Your task to perform on an android device: Show the shopping cart on amazon. Add "logitech g933" to the cart on amazon, then select checkout. Image 0: 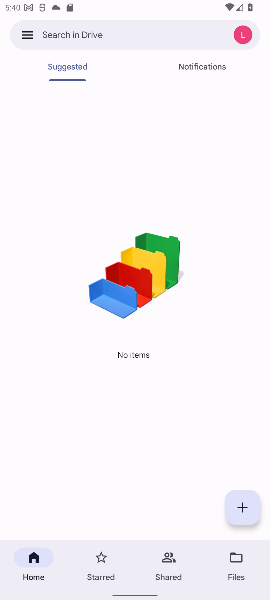
Step 0: press home button
Your task to perform on an android device: Show the shopping cart on amazon. Add "logitech g933" to the cart on amazon, then select checkout. Image 1: 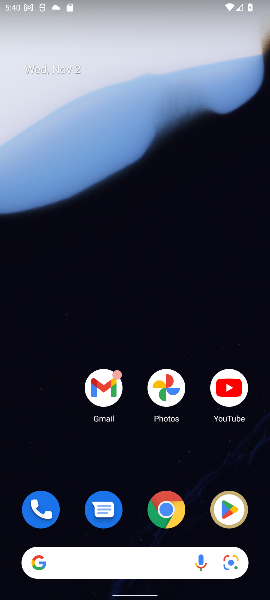
Step 1: click (151, 556)
Your task to perform on an android device: Show the shopping cart on amazon. Add "logitech g933" to the cart on amazon, then select checkout. Image 2: 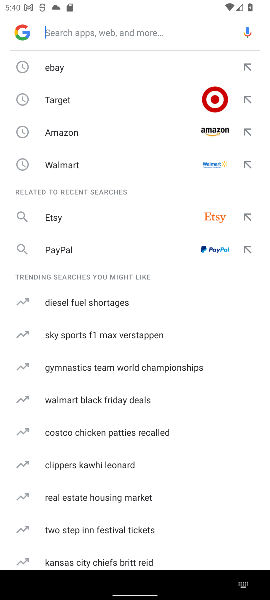
Step 2: click (74, 131)
Your task to perform on an android device: Show the shopping cart on amazon. Add "logitech g933" to the cart on amazon, then select checkout. Image 3: 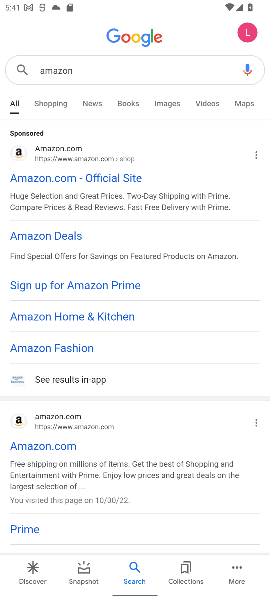
Step 3: click (40, 443)
Your task to perform on an android device: Show the shopping cart on amazon. Add "logitech g933" to the cart on amazon, then select checkout. Image 4: 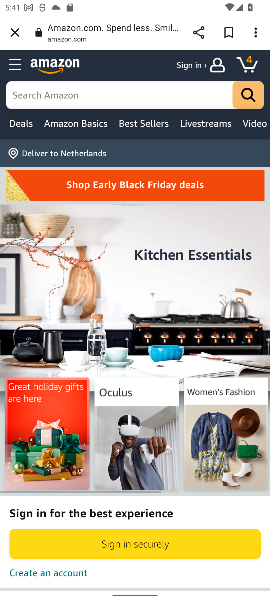
Step 4: click (102, 94)
Your task to perform on an android device: Show the shopping cart on amazon. Add "logitech g933" to the cart on amazon, then select checkout. Image 5: 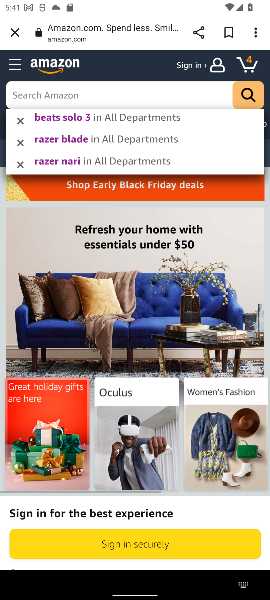
Step 5: click (250, 64)
Your task to perform on an android device: Show the shopping cart on amazon. Add "logitech g933" to the cart on amazon, then select checkout. Image 6: 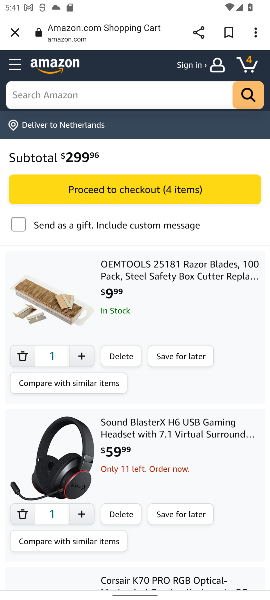
Step 6: click (43, 96)
Your task to perform on an android device: Show the shopping cart on amazon. Add "logitech g933" to the cart on amazon, then select checkout. Image 7: 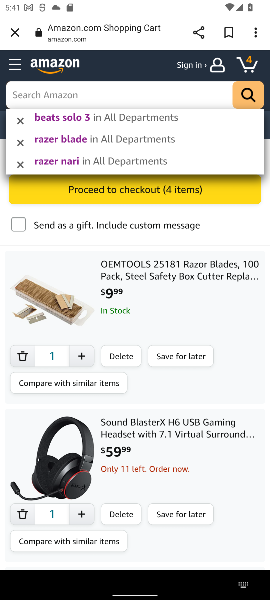
Step 7: type "logitech g933"
Your task to perform on an android device: Show the shopping cart on amazon. Add "logitech g933" to the cart on amazon, then select checkout. Image 8: 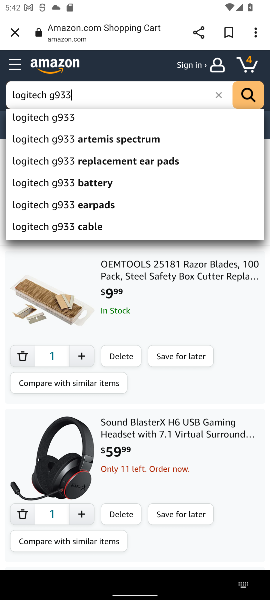
Step 8: click (52, 117)
Your task to perform on an android device: Show the shopping cart on amazon. Add "logitech g933" to the cart on amazon, then select checkout. Image 9: 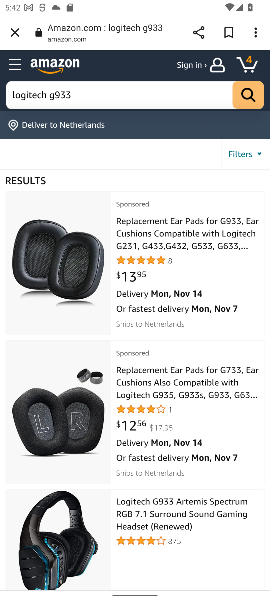
Step 9: click (152, 234)
Your task to perform on an android device: Show the shopping cart on amazon. Add "logitech g933" to the cart on amazon, then select checkout. Image 10: 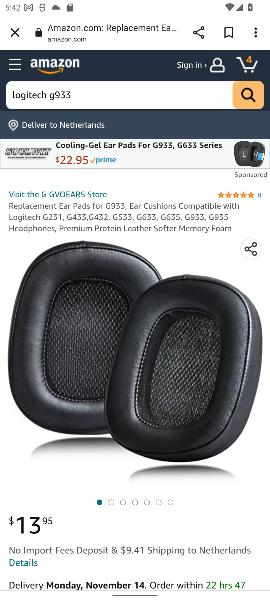
Step 10: drag from (210, 488) to (157, 258)
Your task to perform on an android device: Show the shopping cart on amazon. Add "logitech g933" to the cart on amazon, then select checkout. Image 11: 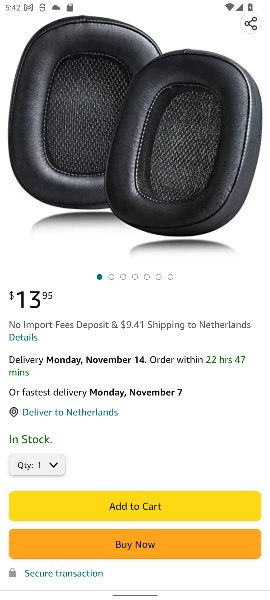
Step 11: click (151, 508)
Your task to perform on an android device: Show the shopping cart on amazon. Add "logitech g933" to the cart on amazon, then select checkout. Image 12: 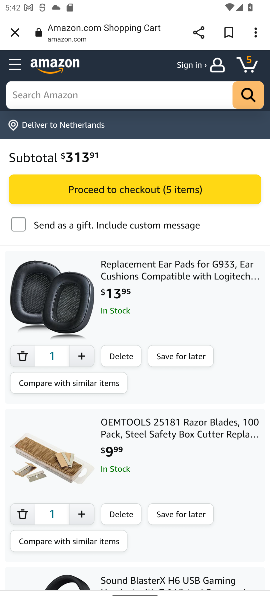
Step 12: click (124, 190)
Your task to perform on an android device: Show the shopping cart on amazon. Add "logitech g933" to the cart on amazon, then select checkout. Image 13: 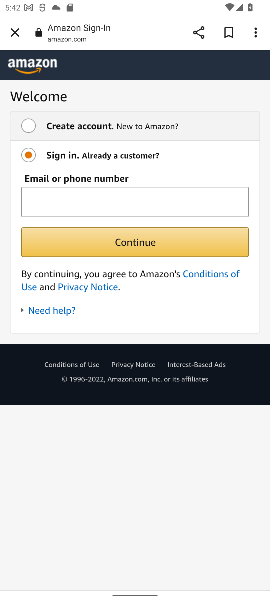
Step 13: task complete